Your task to perform on an android device: toggle sleep mode Image 0: 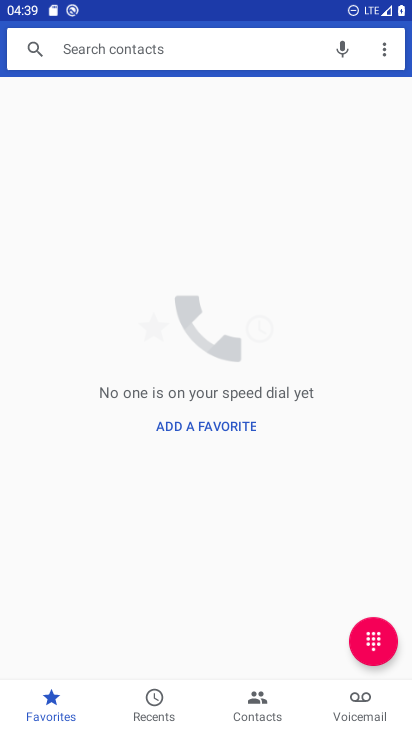
Step 0: press home button
Your task to perform on an android device: toggle sleep mode Image 1: 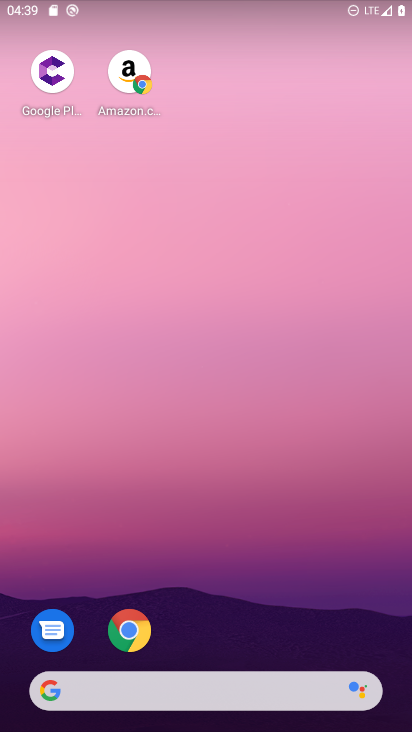
Step 1: drag from (278, 673) to (301, 7)
Your task to perform on an android device: toggle sleep mode Image 2: 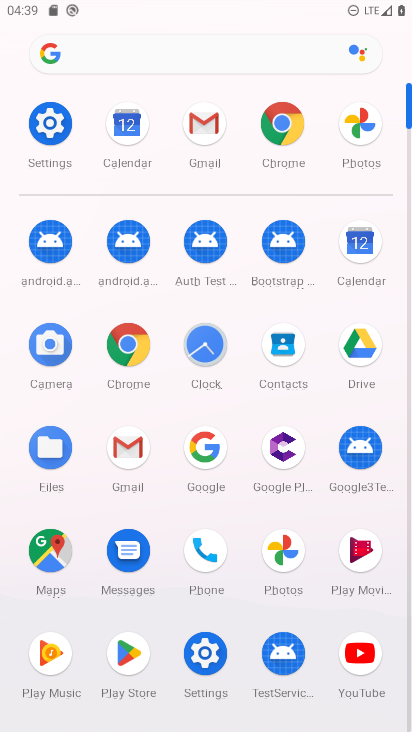
Step 2: click (38, 108)
Your task to perform on an android device: toggle sleep mode Image 3: 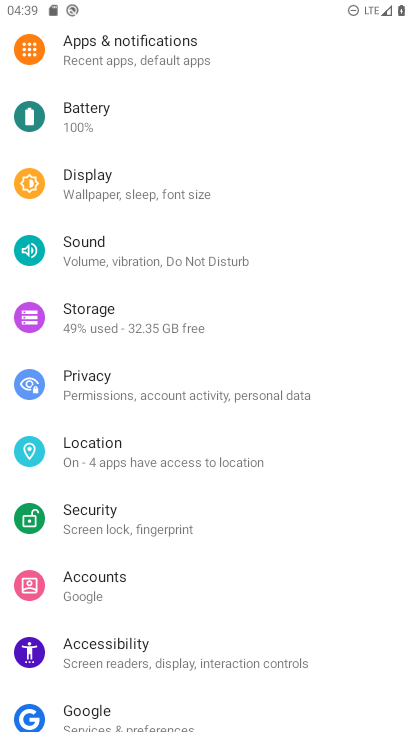
Step 3: drag from (223, 260) to (235, 721)
Your task to perform on an android device: toggle sleep mode Image 4: 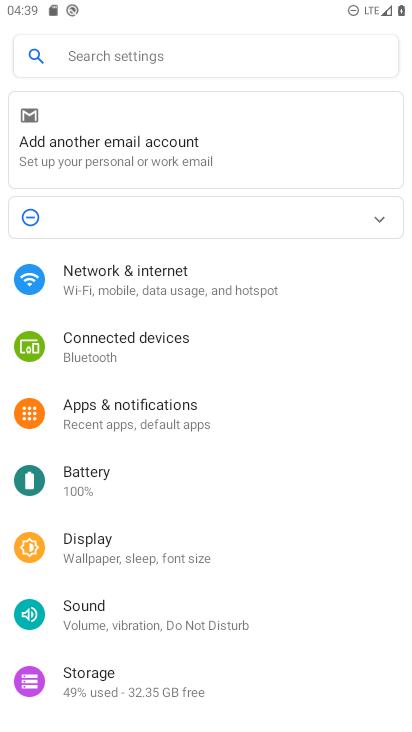
Step 4: click (133, 556)
Your task to perform on an android device: toggle sleep mode Image 5: 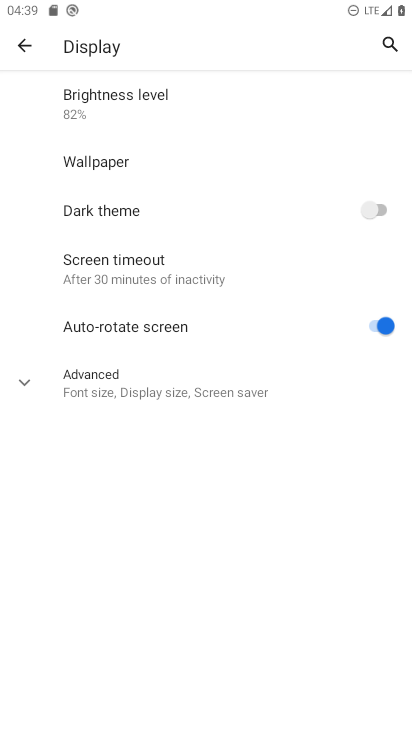
Step 5: task complete